Your task to perform on an android device: Go to accessibility settings Image 0: 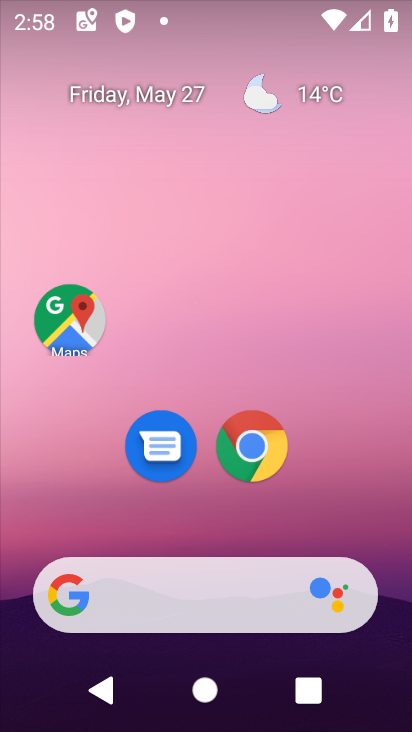
Step 0: press home button
Your task to perform on an android device: Go to accessibility settings Image 1: 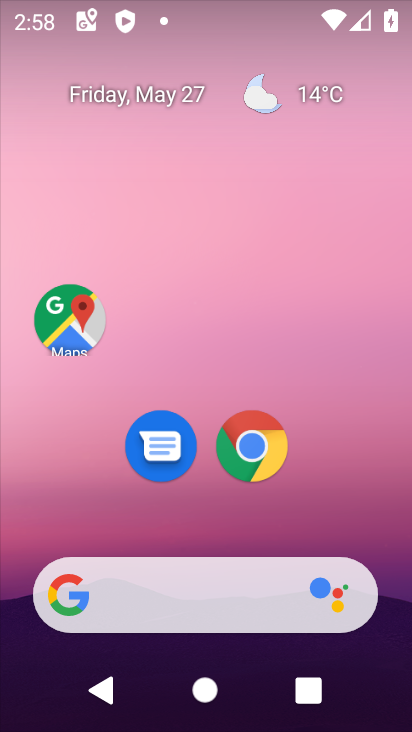
Step 1: drag from (233, 607) to (367, 100)
Your task to perform on an android device: Go to accessibility settings Image 2: 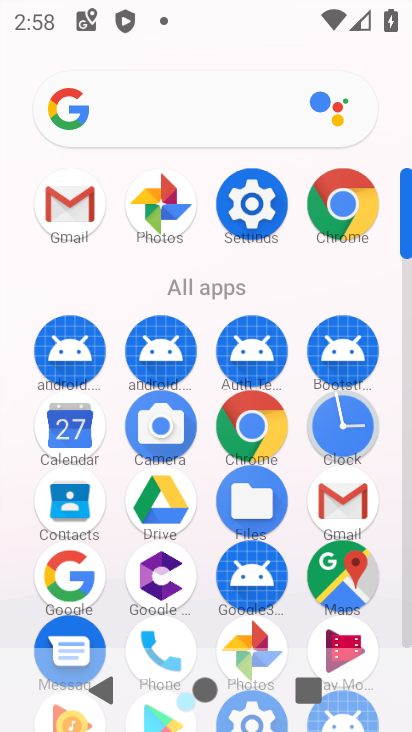
Step 2: click (251, 204)
Your task to perform on an android device: Go to accessibility settings Image 3: 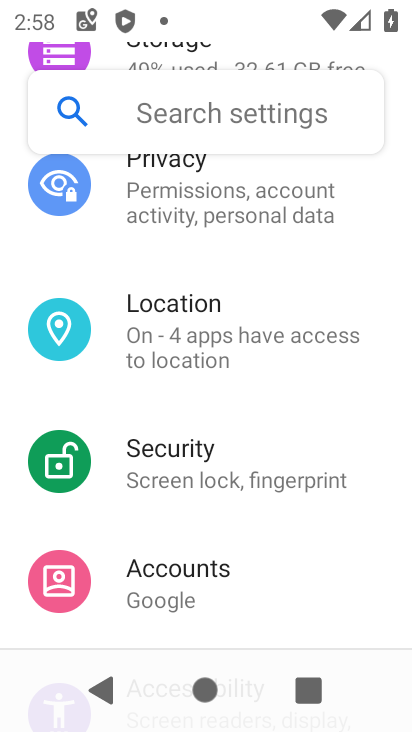
Step 3: drag from (246, 556) to (320, 110)
Your task to perform on an android device: Go to accessibility settings Image 4: 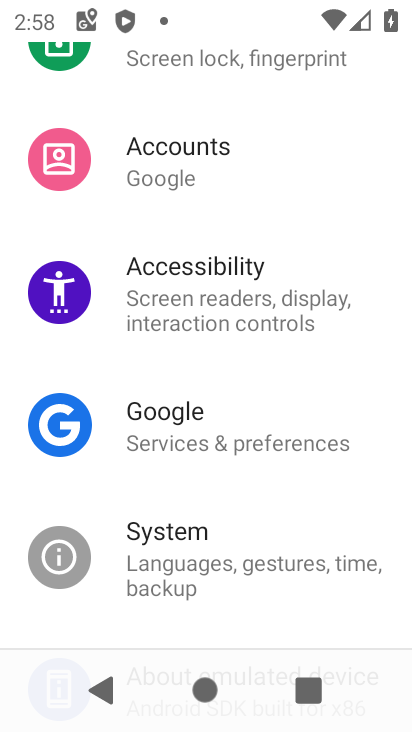
Step 4: click (245, 300)
Your task to perform on an android device: Go to accessibility settings Image 5: 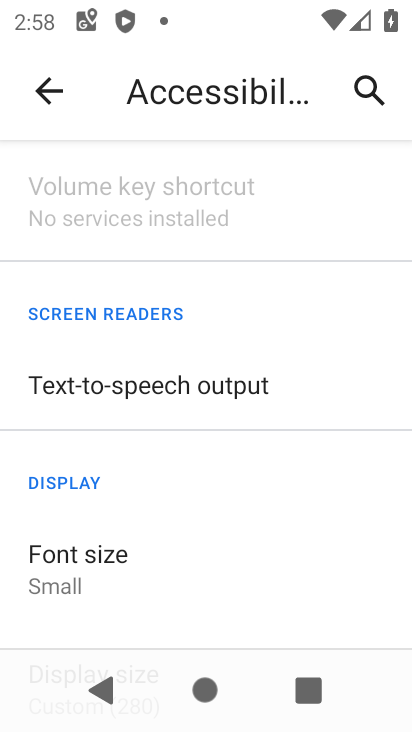
Step 5: task complete